Your task to perform on an android device: turn off notifications settings in the gmail app Image 0: 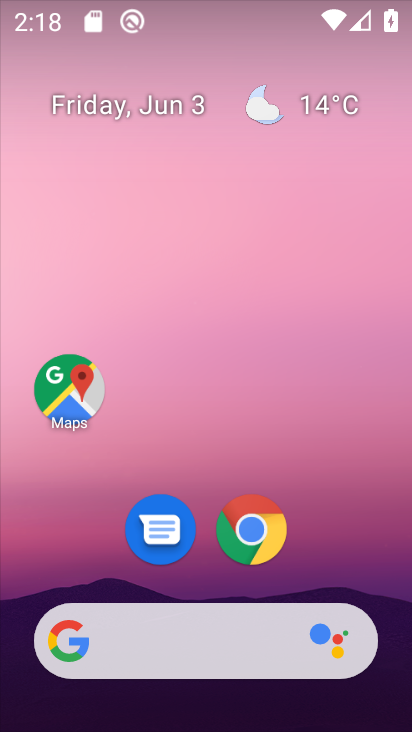
Step 0: click (193, 319)
Your task to perform on an android device: turn off notifications settings in the gmail app Image 1: 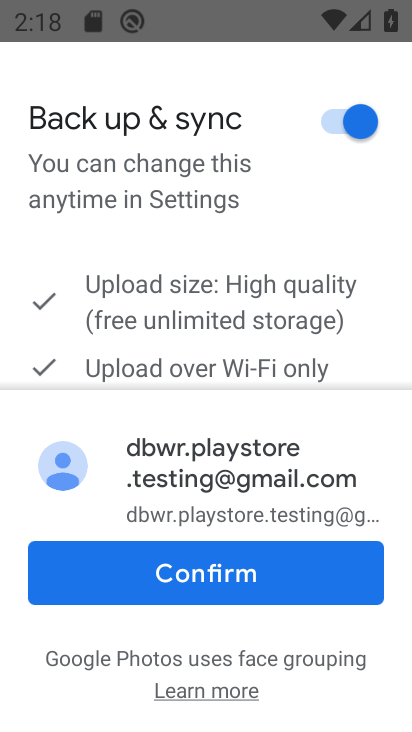
Step 1: click (258, 574)
Your task to perform on an android device: turn off notifications settings in the gmail app Image 2: 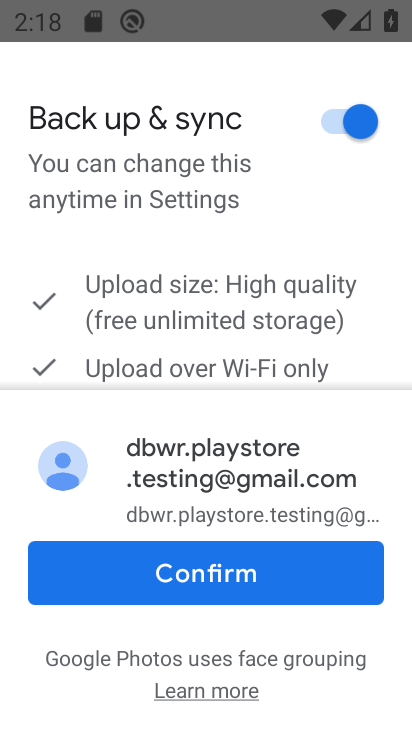
Step 2: click (258, 574)
Your task to perform on an android device: turn off notifications settings in the gmail app Image 3: 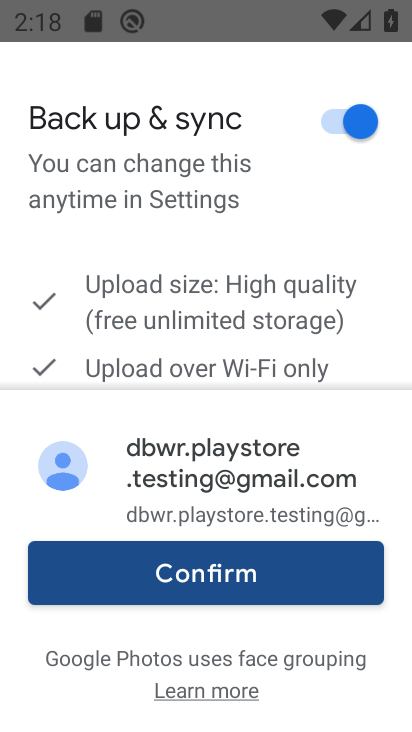
Step 3: click (258, 574)
Your task to perform on an android device: turn off notifications settings in the gmail app Image 4: 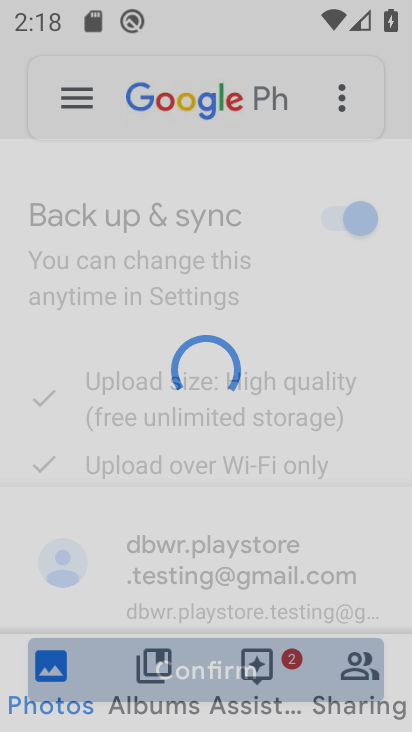
Step 4: click (258, 574)
Your task to perform on an android device: turn off notifications settings in the gmail app Image 5: 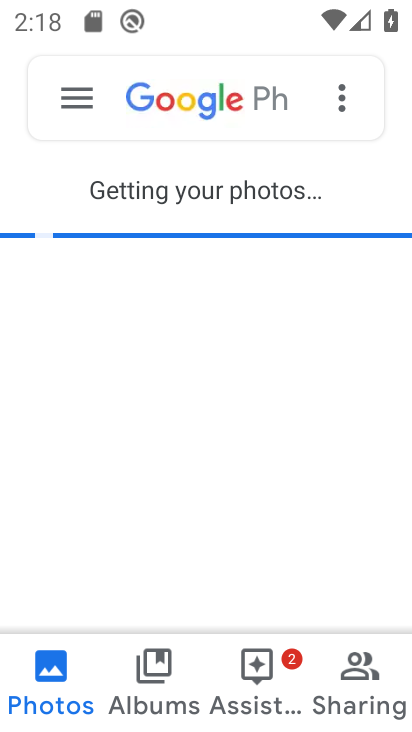
Step 5: click (258, 574)
Your task to perform on an android device: turn off notifications settings in the gmail app Image 6: 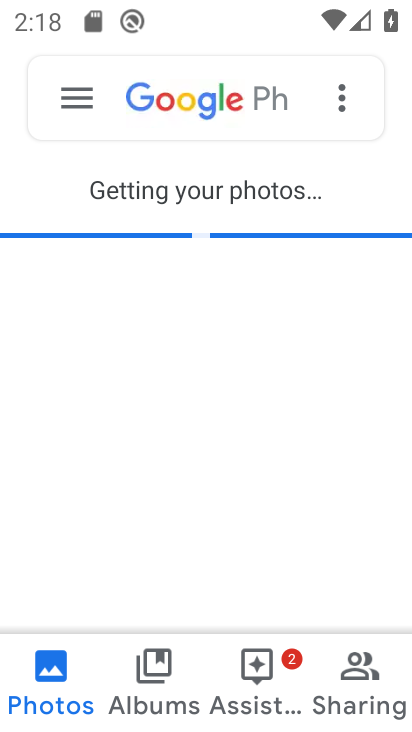
Step 6: click (258, 574)
Your task to perform on an android device: turn off notifications settings in the gmail app Image 7: 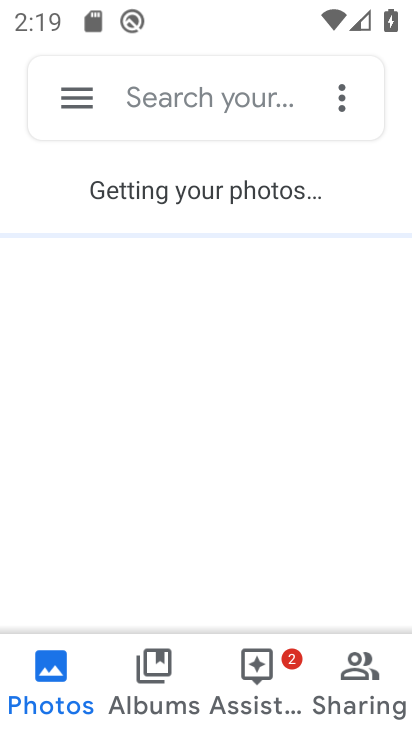
Step 7: click (86, 85)
Your task to perform on an android device: turn off notifications settings in the gmail app Image 8: 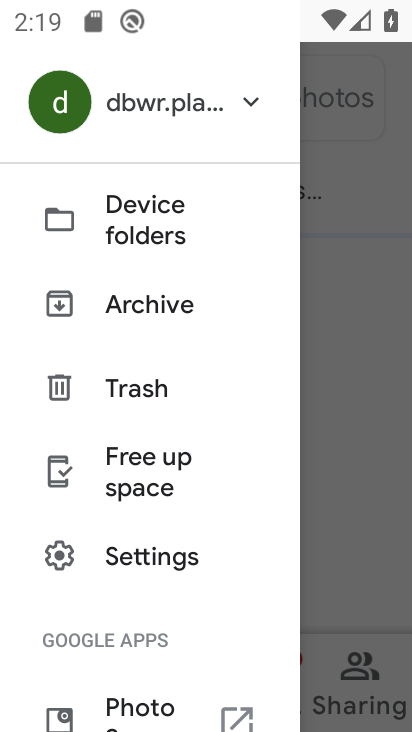
Step 8: click (148, 555)
Your task to perform on an android device: turn off notifications settings in the gmail app Image 9: 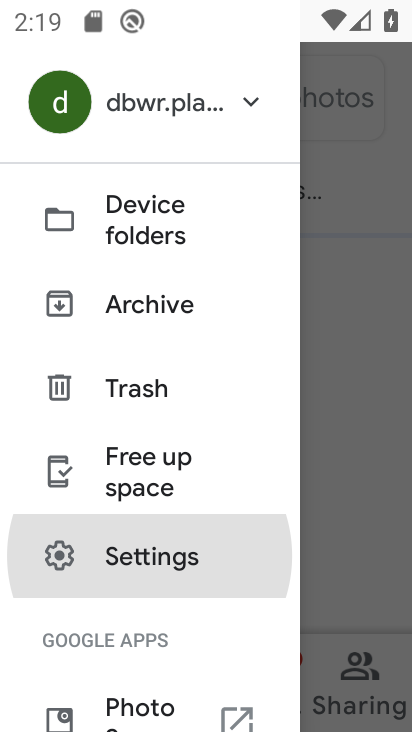
Step 9: click (148, 555)
Your task to perform on an android device: turn off notifications settings in the gmail app Image 10: 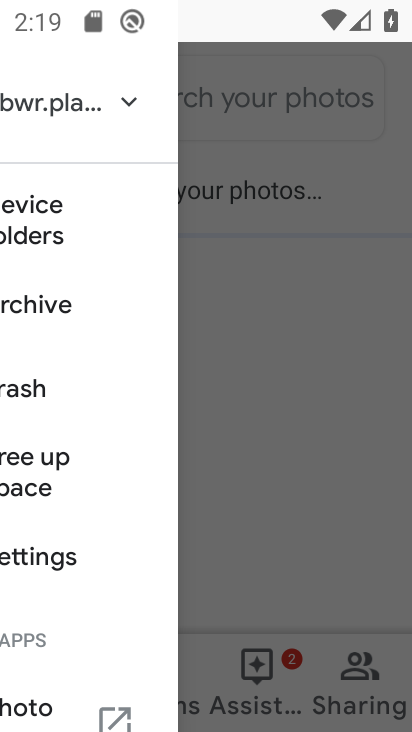
Step 10: click (148, 555)
Your task to perform on an android device: turn off notifications settings in the gmail app Image 11: 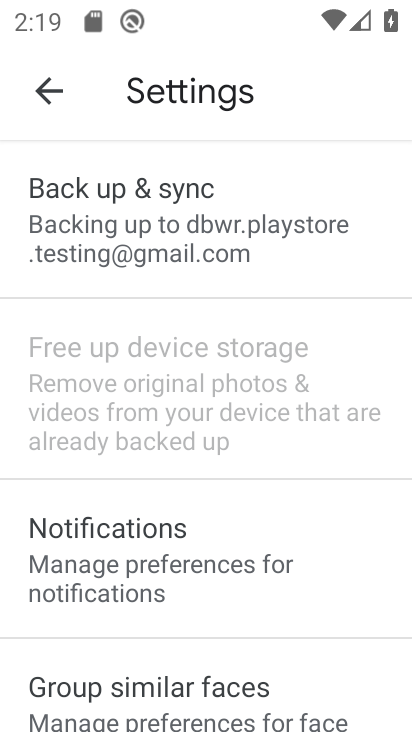
Step 11: drag from (132, 446) to (136, 272)
Your task to perform on an android device: turn off notifications settings in the gmail app Image 12: 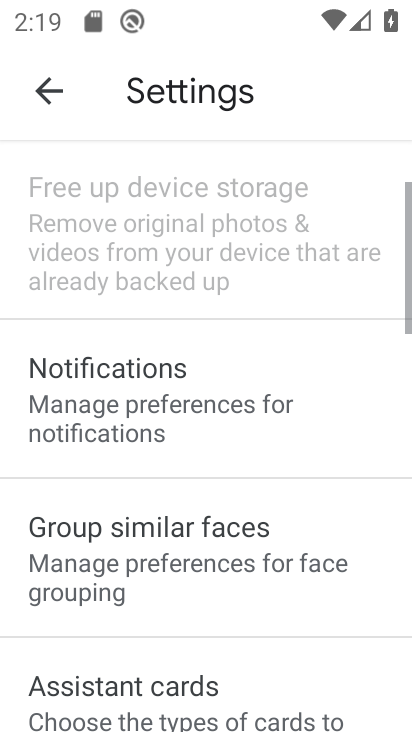
Step 12: drag from (174, 441) to (168, 239)
Your task to perform on an android device: turn off notifications settings in the gmail app Image 13: 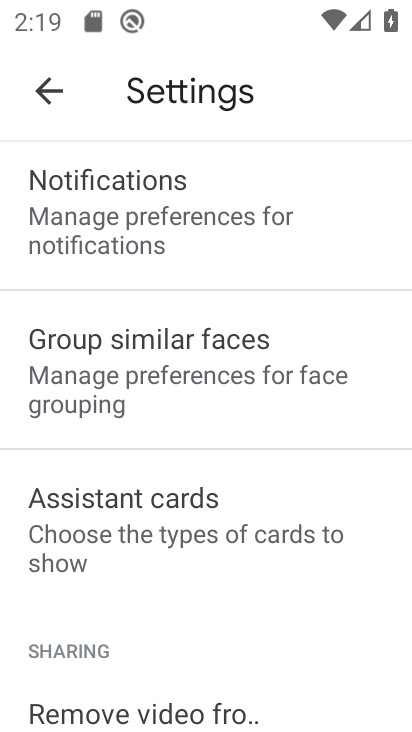
Step 13: drag from (138, 471) to (142, 243)
Your task to perform on an android device: turn off notifications settings in the gmail app Image 14: 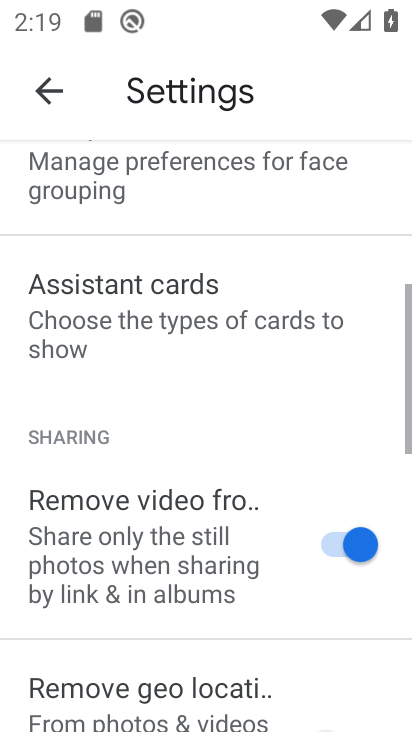
Step 14: drag from (142, 442) to (136, 238)
Your task to perform on an android device: turn off notifications settings in the gmail app Image 15: 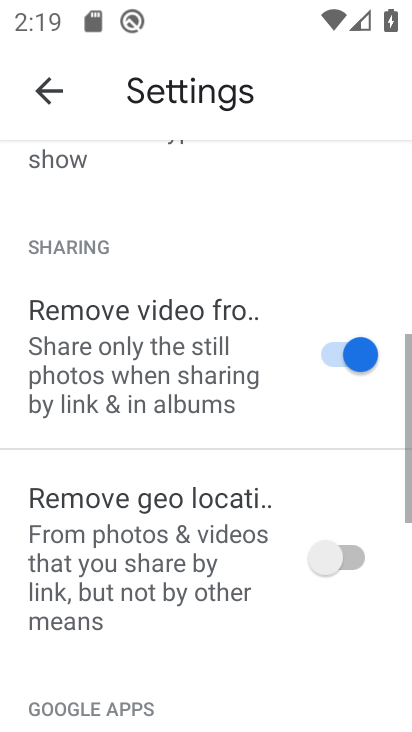
Step 15: drag from (155, 426) to (151, 254)
Your task to perform on an android device: turn off notifications settings in the gmail app Image 16: 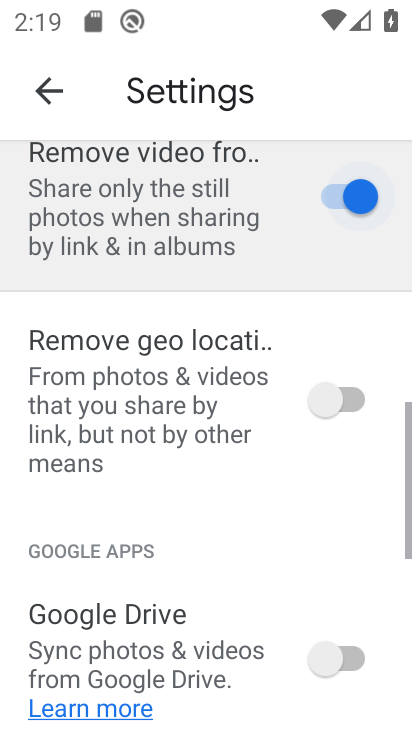
Step 16: drag from (146, 406) to (147, 192)
Your task to perform on an android device: turn off notifications settings in the gmail app Image 17: 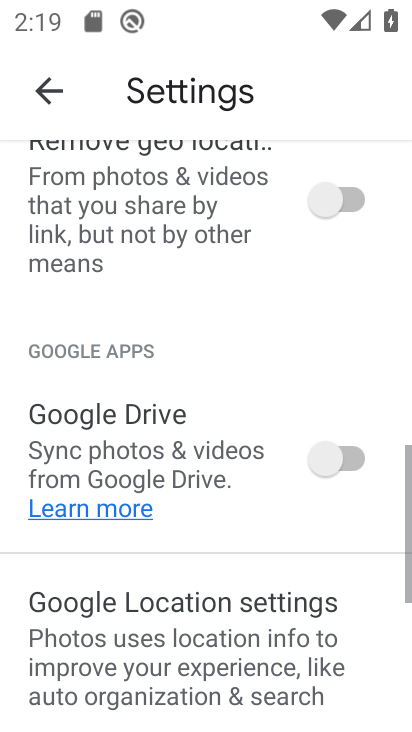
Step 17: drag from (156, 397) to (159, 161)
Your task to perform on an android device: turn off notifications settings in the gmail app Image 18: 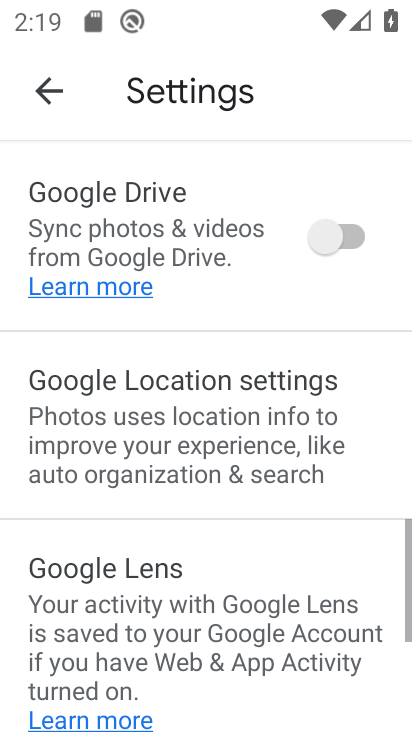
Step 18: drag from (164, 409) to (185, 155)
Your task to perform on an android device: turn off notifications settings in the gmail app Image 19: 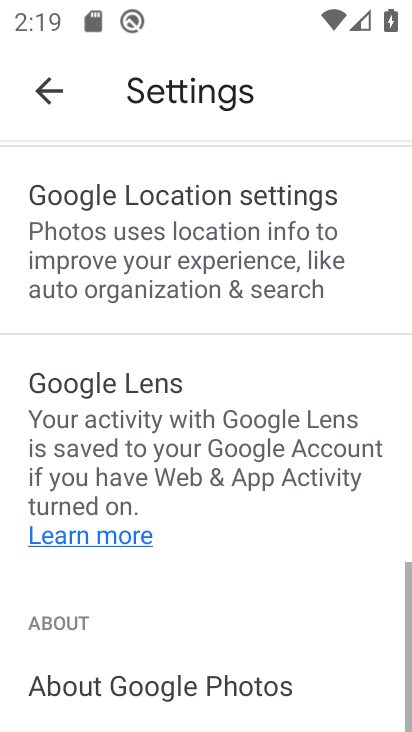
Step 19: drag from (178, 404) to (200, 134)
Your task to perform on an android device: turn off notifications settings in the gmail app Image 20: 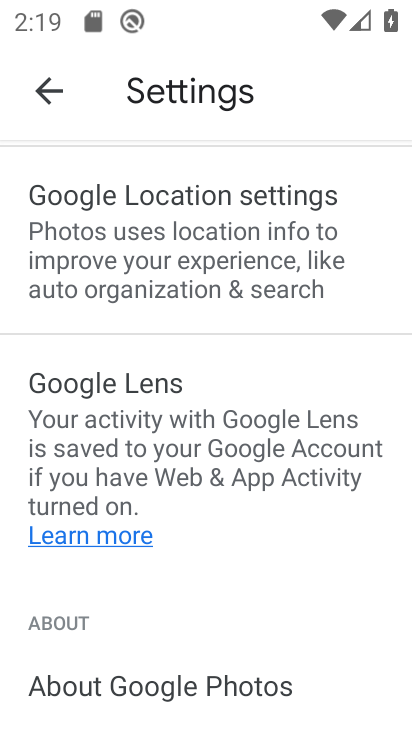
Step 20: drag from (101, 614) to (120, 356)
Your task to perform on an android device: turn off notifications settings in the gmail app Image 21: 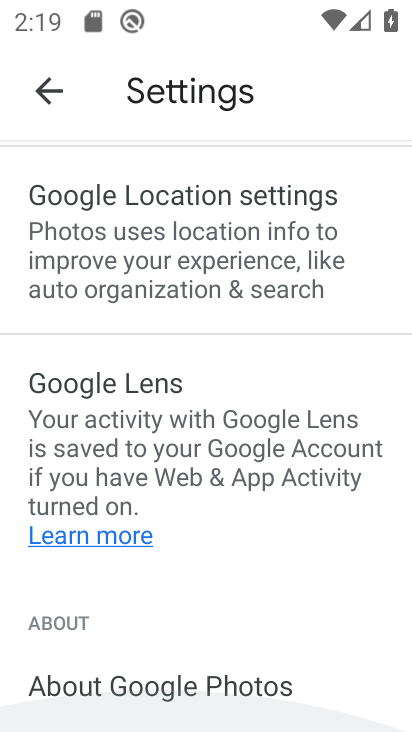
Step 21: drag from (120, 535) to (165, 250)
Your task to perform on an android device: turn off notifications settings in the gmail app Image 22: 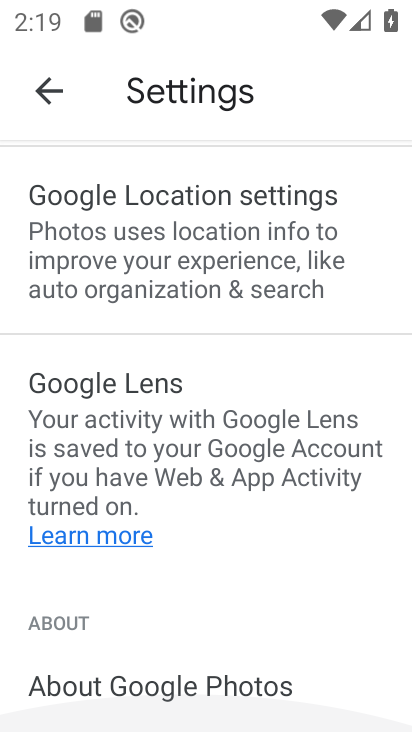
Step 22: drag from (167, 523) to (171, 316)
Your task to perform on an android device: turn off notifications settings in the gmail app Image 23: 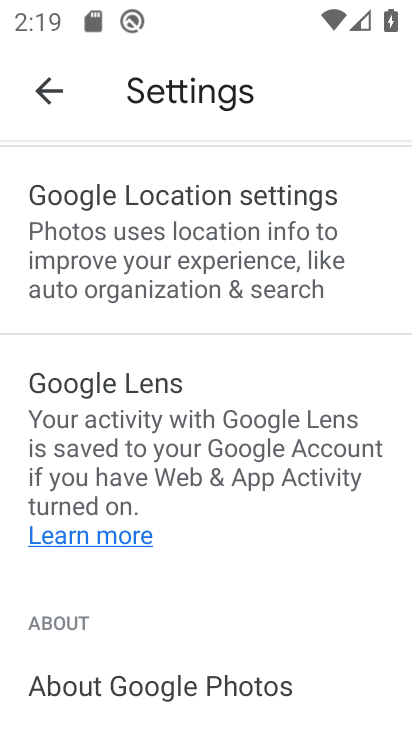
Step 23: drag from (197, 428) to (197, 261)
Your task to perform on an android device: turn off notifications settings in the gmail app Image 24: 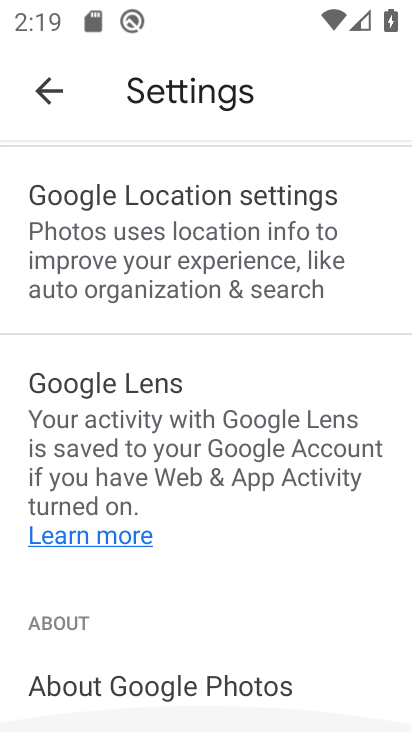
Step 24: click (166, 588)
Your task to perform on an android device: turn off notifications settings in the gmail app Image 25: 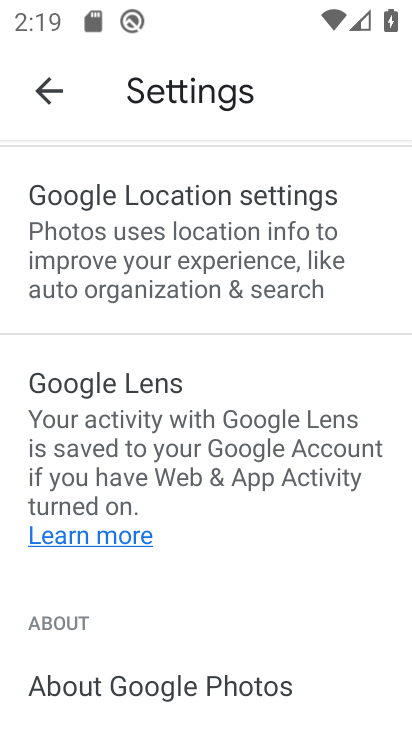
Step 25: click (155, 624)
Your task to perform on an android device: turn off notifications settings in the gmail app Image 26: 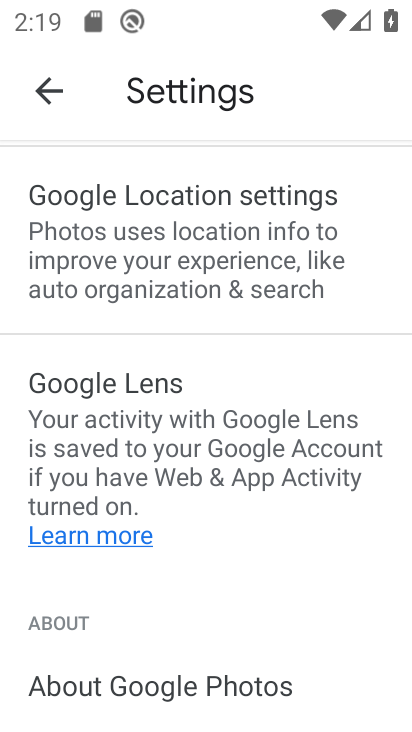
Step 26: drag from (123, 375) to (205, 709)
Your task to perform on an android device: turn off notifications settings in the gmail app Image 27: 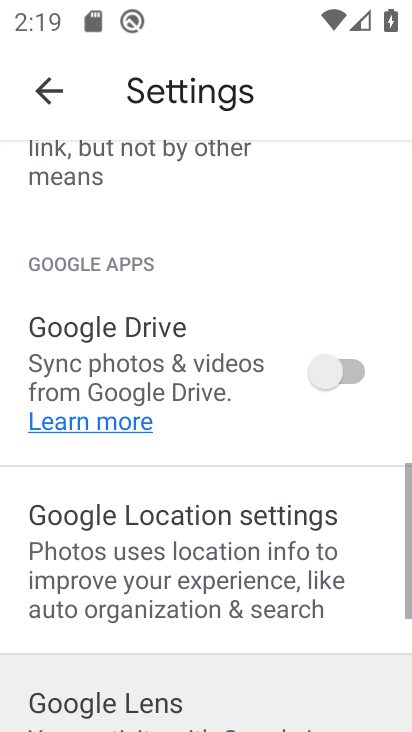
Step 27: drag from (142, 363) to (275, 615)
Your task to perform on an android device: turn off notifications settings in the gmail app Image 28: 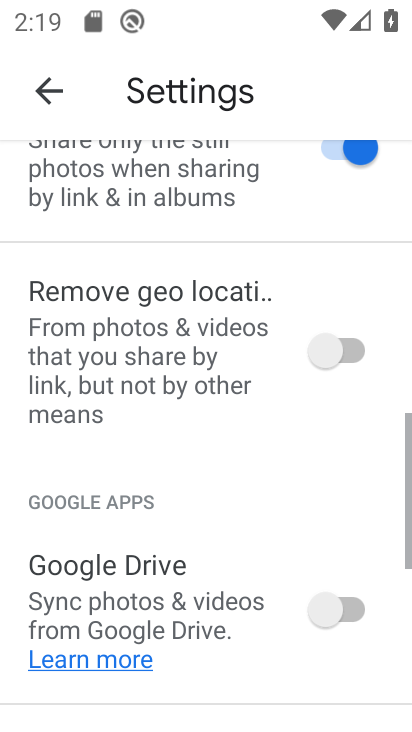
Step 28: drag from (164, 276) to (229, 538)
Your task to perform on an android device: turn off notifications settings in the gmail app Image 29: 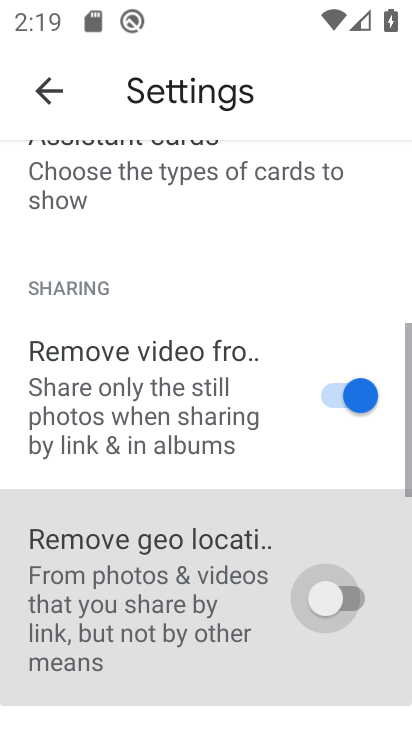
Step 29: drag from (178, 372) to (210, 552)
Your task to perform on an android device: turn off notifications settings in the gmail app Image 30: 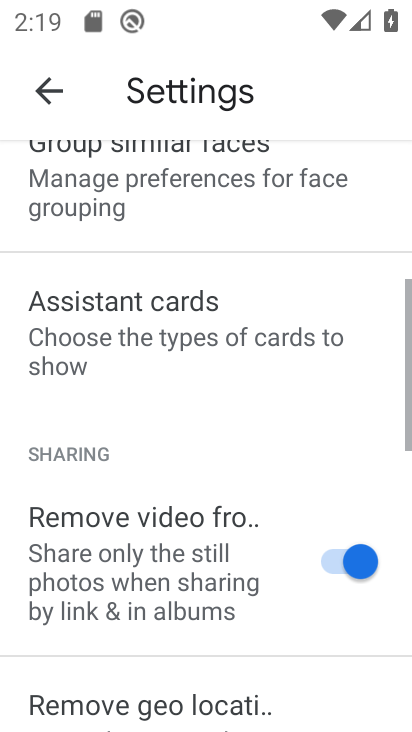
Step 30: drag from (122, 356) to (164, 438)
Your task to perform on an android device: turn off notifications settings in the gmail app Image 31: 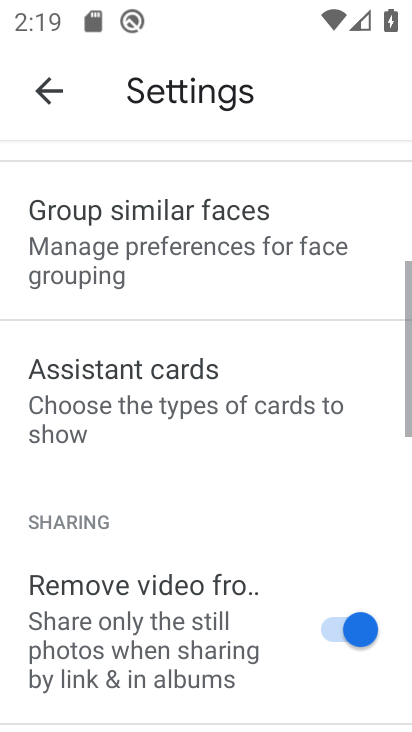
Step 31: drag from (144, 339) to (169, 581)
Your task to perform on an android device: turn off notifications settings in the gmail app Image 32: 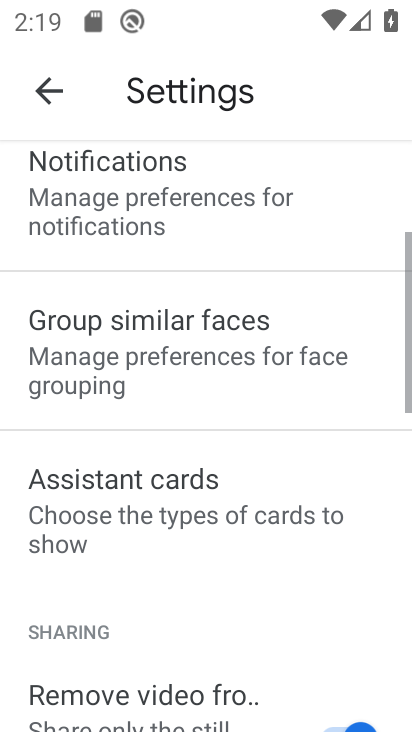
Step 32: click (150, 618)
Your task to perform on an android device: turn off notifications settings in the gmail app Image 33: 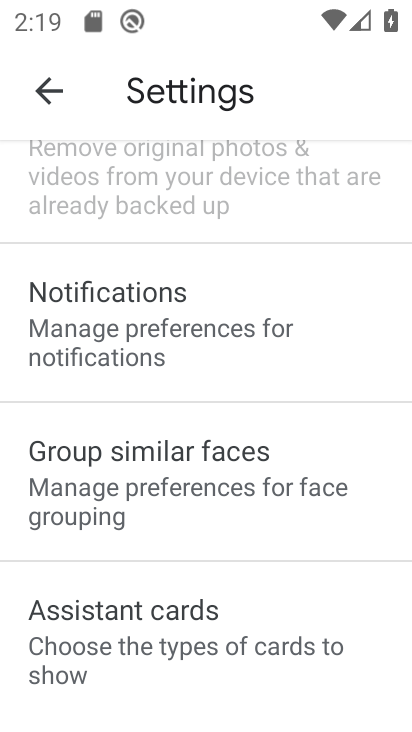
Step 33: drag from (165, 476) to (166, 719)
Your task to perform on an android device: turn off notifications settings in the gmail app Image 34: 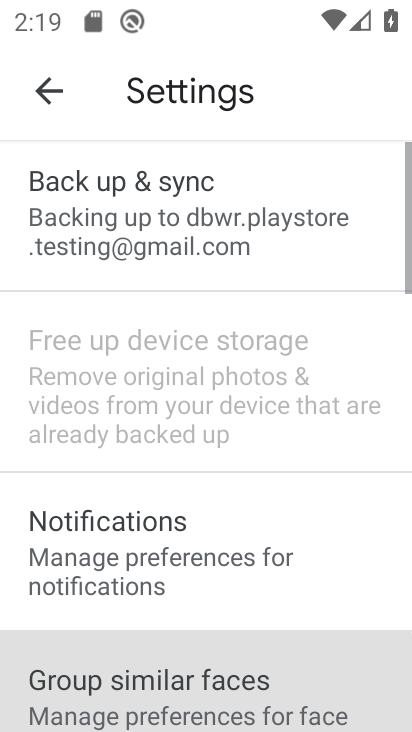
Step 34: drag from (191, 572) to (185, 651)
Your task to perform on an android device: turn off notifications settings in the gmail app Image 35: 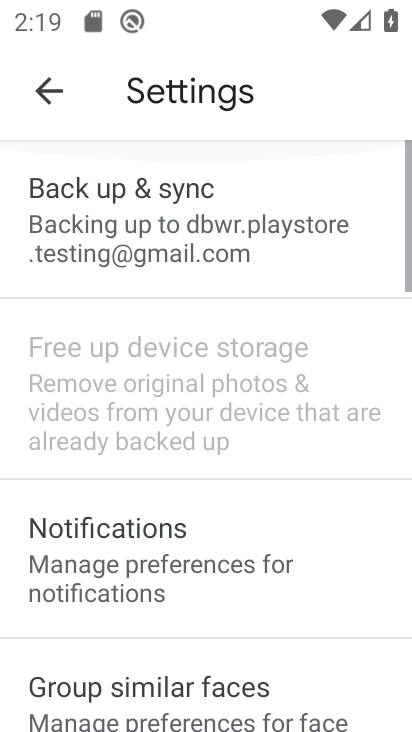
Step 35: drag from (176, 499) to (193, 626)
Your task to perform on an android device: turn off notifications settings in the gmail app Image 36: 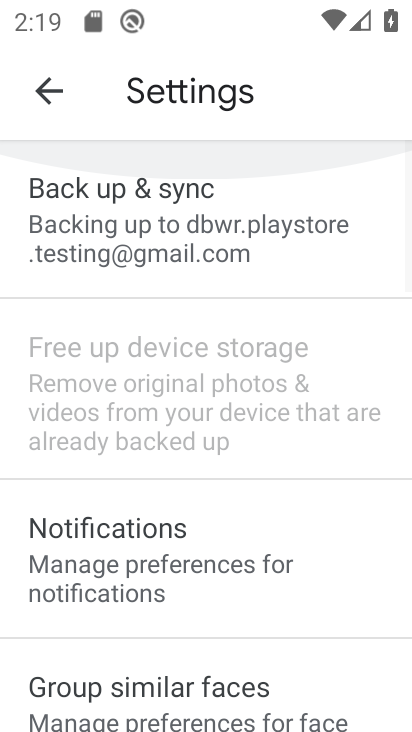
Step 36: drag from (106, 256) to (208, 632)
Your task to perform on an android device: turn off notifications settings in the gmail app Image 37: 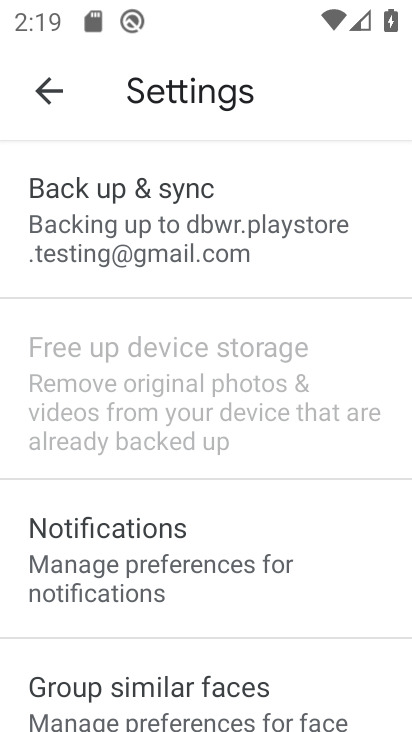
Step 37: click (49, 91)
Your task to perform on an android device: turn off notifications settings in the gmail app Image 38: 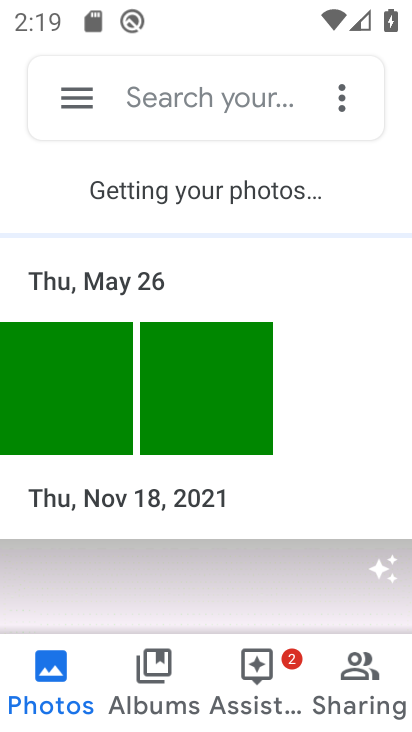
Step 38: click (73, 110)
Your task to perform on an android device: turn off notifications settings in the gmail app Image 39: 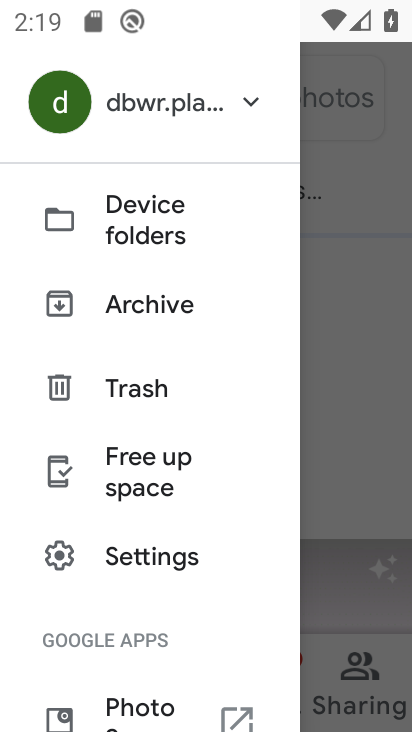
Step 39: drag from (162, 602) to (162, 303)
Your task to perform on an android device: turn off notifications settings in the gmail app Image 40: 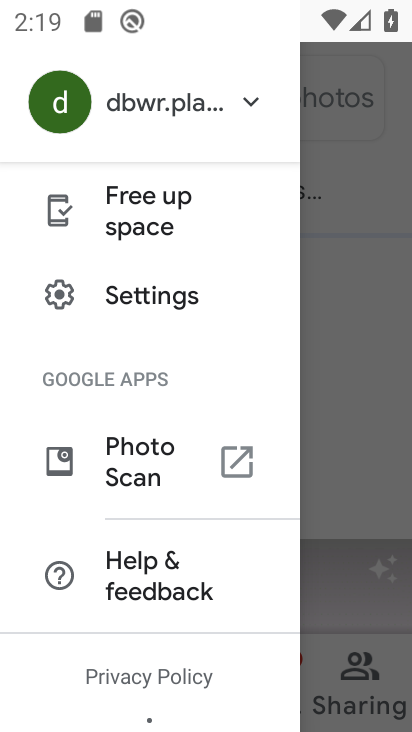
Step 40: drag from (176, 435) to (177, 95)
Your task to perform on an android device: turn off notifications settings in the gmail app Image 41: 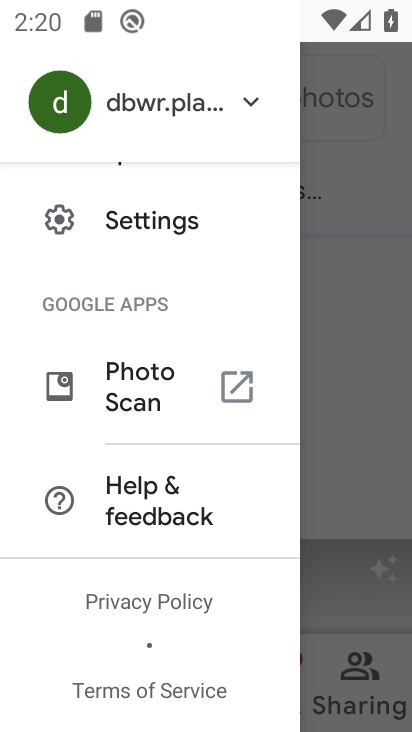
Step 41: click (149, 207)
Your task to perform on an android device: turn off notifications settings in the gmail app Image 42: 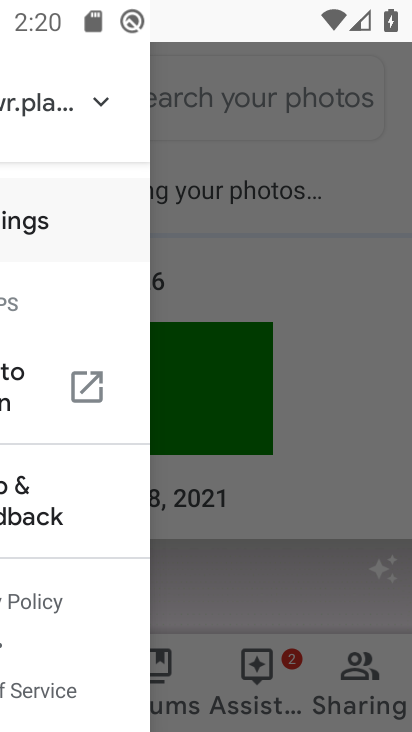
Step 42: click (146, 211)
Your task to perform on an android device: turn off notifications settings in the gmail app Image 43: 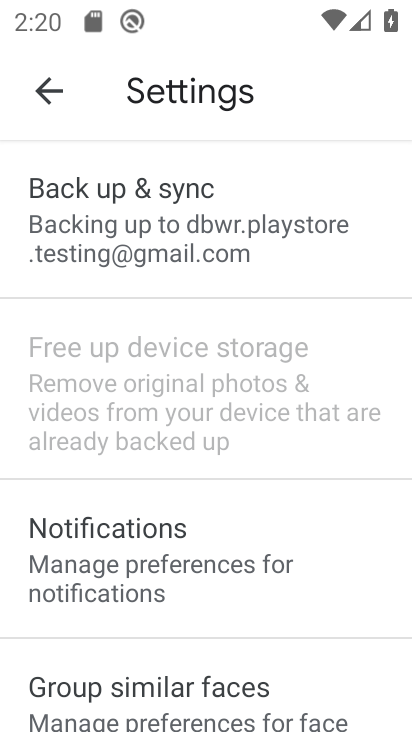
Step 43: drag from (125, 293) to (114, 212)
Your task to perform on an android device: turn off notifications settings in the gmail app Image 44: 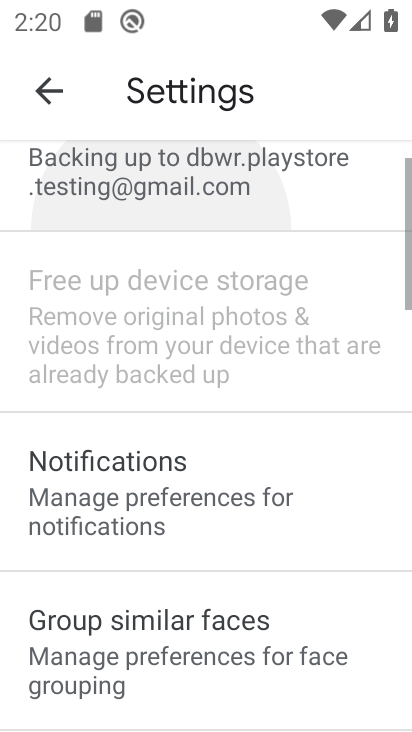
Step 44: drag from (141, 580) to (152, 135)
Your task to perform on an android device: turn off notifications settings in the gmail app Image 45: 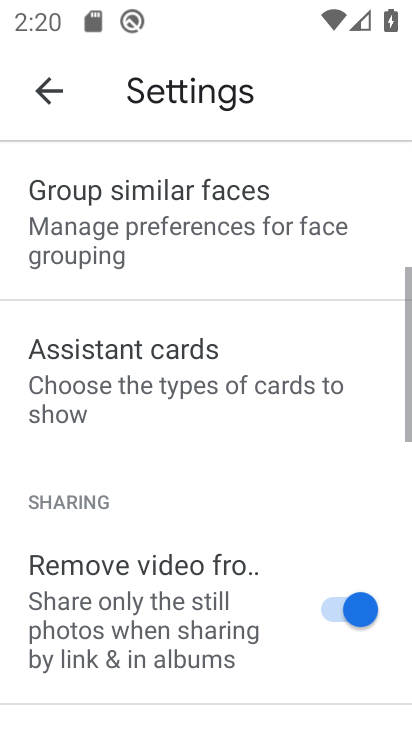
Step 45: drag from (215, 484) to (212, 161)
Your task to perform on an android device: turn off notifications settings in the gmail app Image 46: 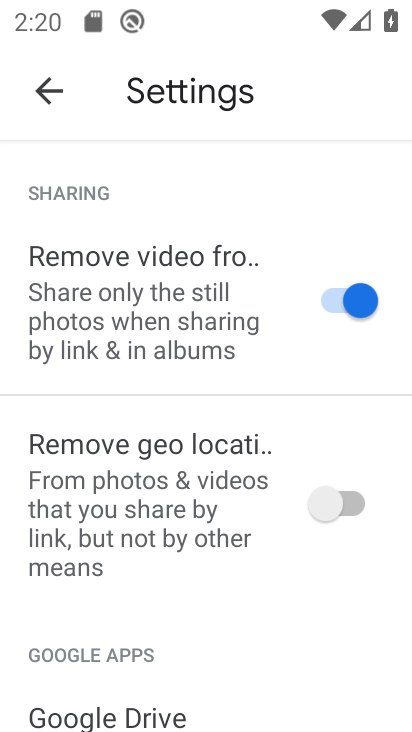
Step 46: drag from (151, 249) to (236, 605)
Your task to perform on an android device: turn off notifications settings in the gmail app Image 47: 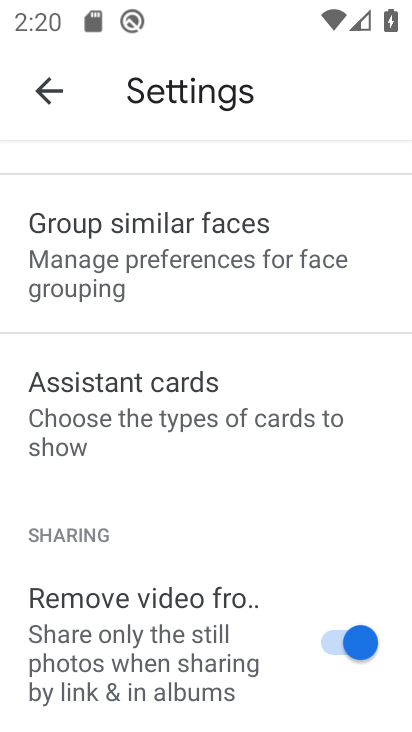
Step 47: drag from (128, 310) to (168, 651)
Your task to perform on an android device: turn off notifications settings in the gmail app Image 48: 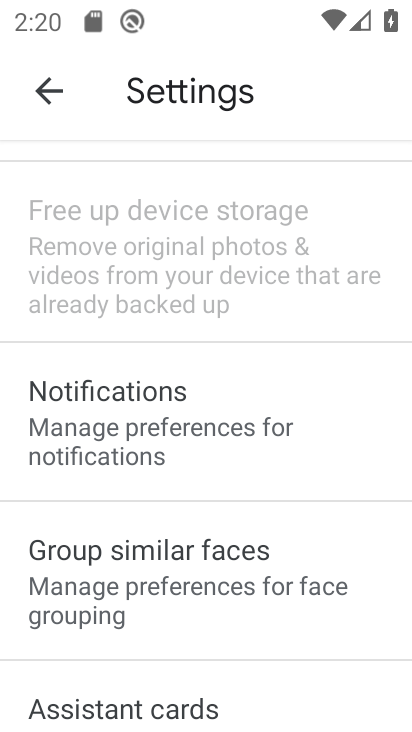
Step 48: click (87, 434)
Your task to perform on an android device: turn off notifications settings in the gmail app Image 49: 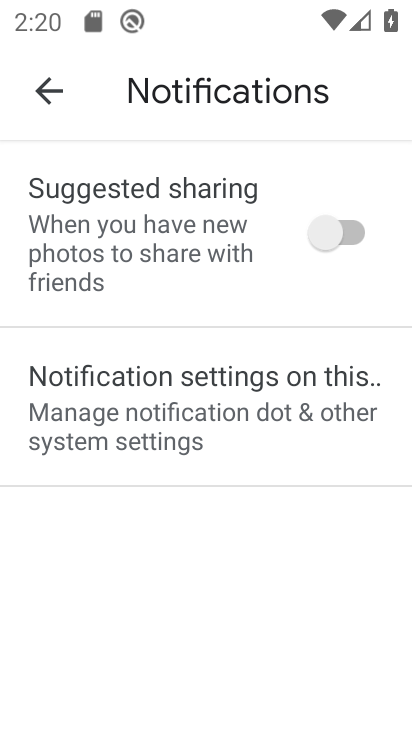
Step 49: click (195, 420)
Your task to perform on an android device: turn off notifications settings in the gmail app Image 50: 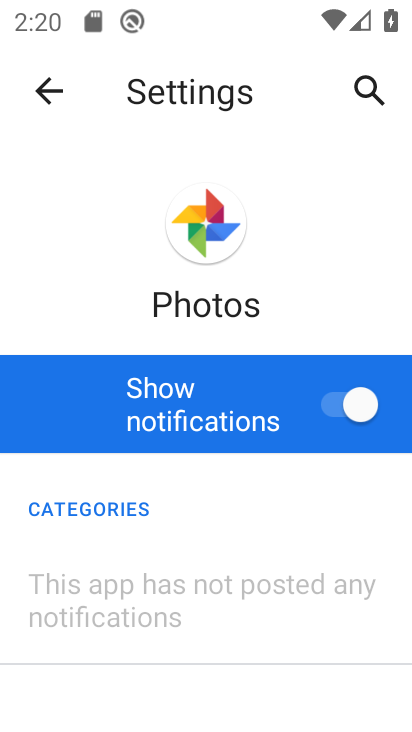
Step 50: click (35, 79)
Your task to perform on an android device: turn off notifications settings in the gmail app Image 51: 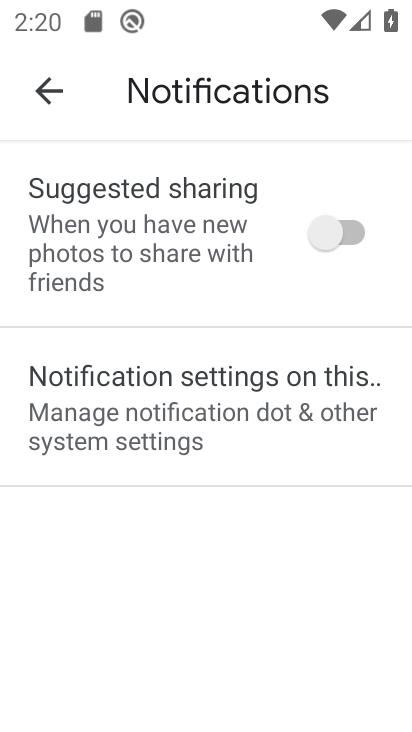
Step 51: press back button
Your task to perform on an android device: turn off notifications settings in the gmail app Image 52: 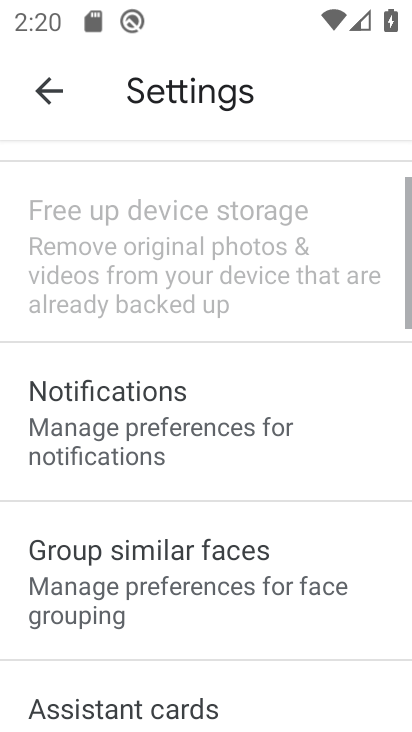
Step 52: press back button
Your task to perform on an android device: turn off notifications settings in the gmail app Image 53: 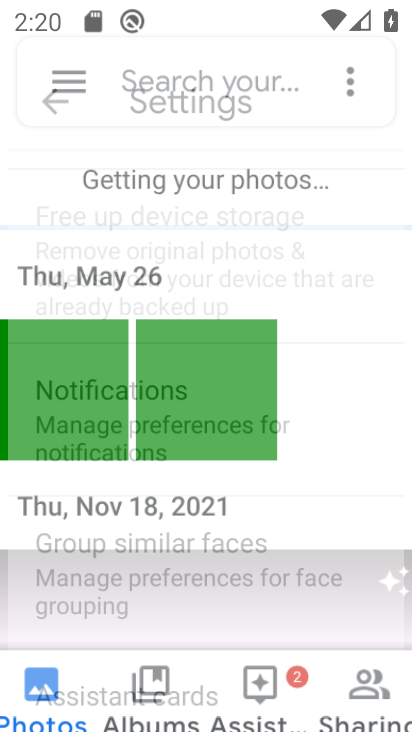
Step 53: press back button
Your task to perform on an android device: turn off notifications settings in the gmail app Image 54: 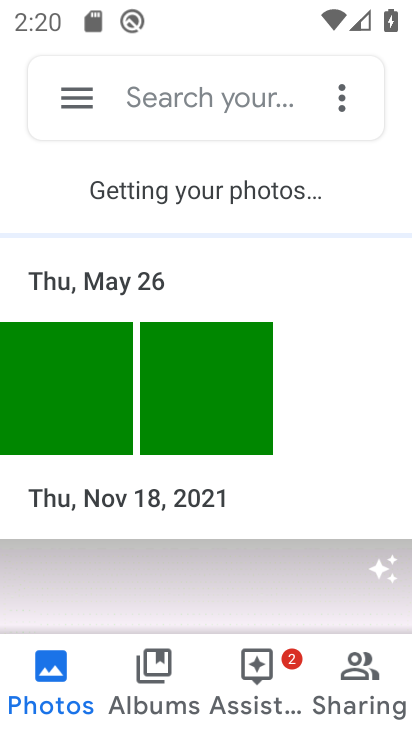
Step 54: press back button
Your task to perform on an android device: turn off notifications settings in the gmail app Image 55: 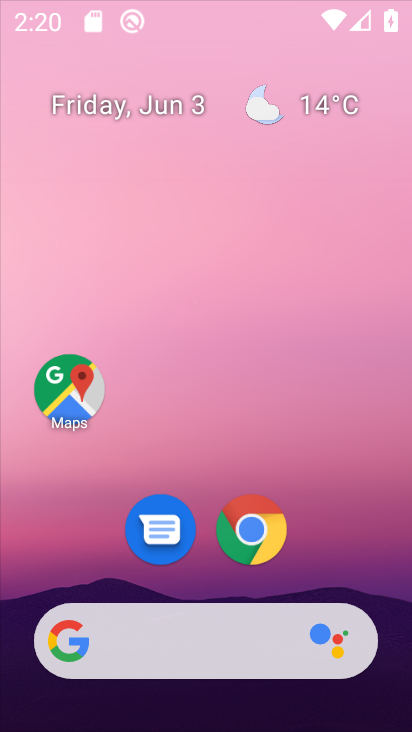
Step 55: press back button
Your task to perform on an android device: turn off notifications settings in the gmail app Image 56: 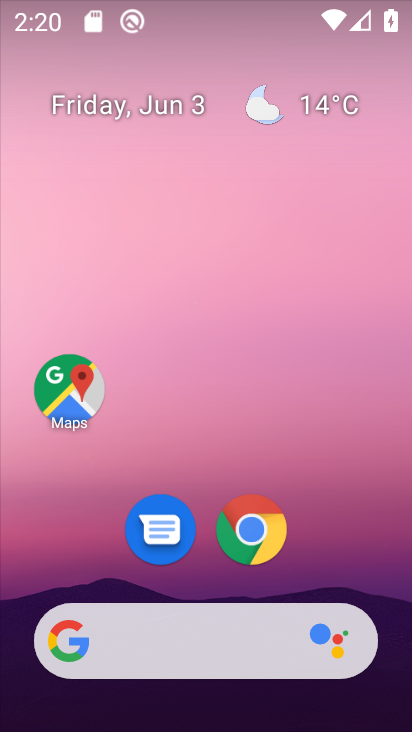
Step 56: press home button
Your task to perform on an android device: turn off notifications settings in the gmail app Image 57: 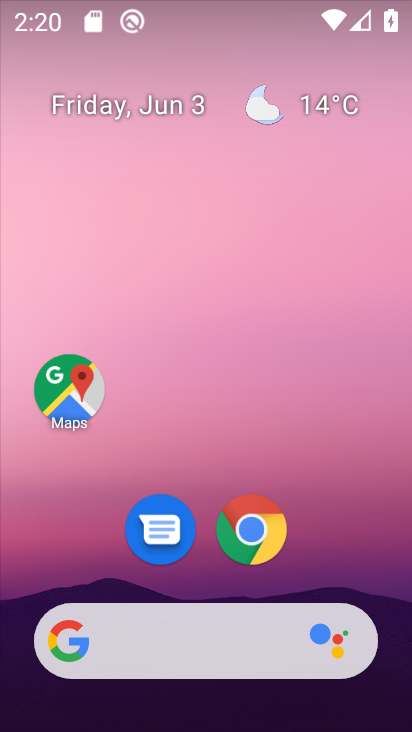
Step 57: press home button
Your task to perform on an android device: turn off notifications settings in the gmail app Image 58: 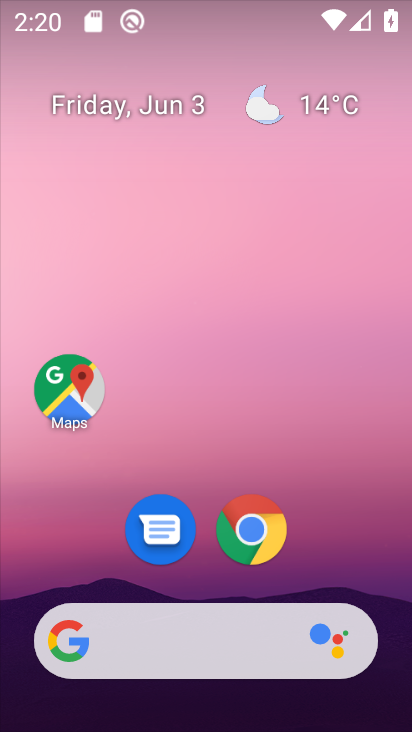
Step 58: drag from (303, 691) to (204, 64)
Your task to perform on an android device: turn off notifications settings in the gmail app Image 59: 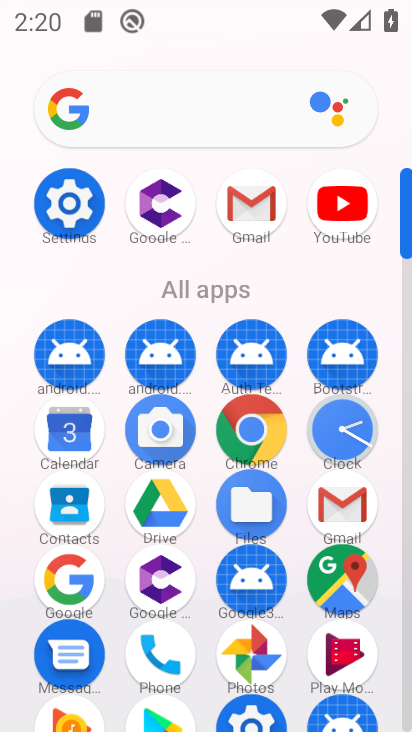
Step 59: click (331, 495)
Your task to perform on an android device: turn off notifications settings in the gmail app Image 60: 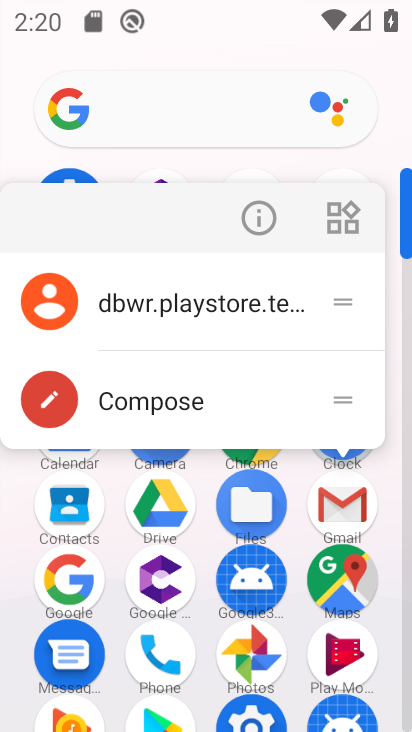
Step 60: click (181, 292)
Your task to perform on an android device: turn off notifications settings in the gmail app Image 61: 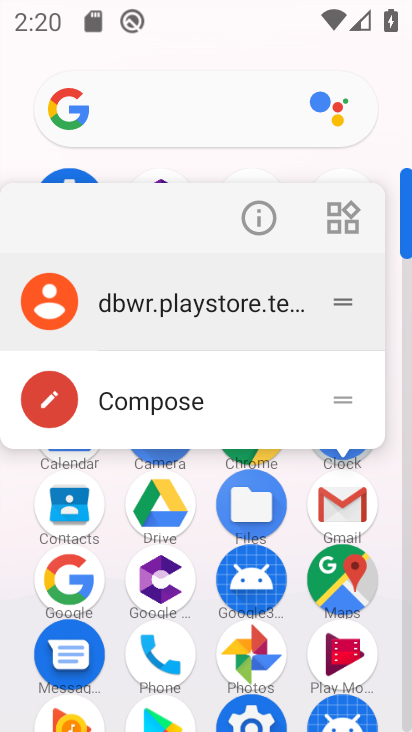
Step 61: click (179, 295)
Your task to perform on an android device: turn off notifications settings in the gmail app Image 62: 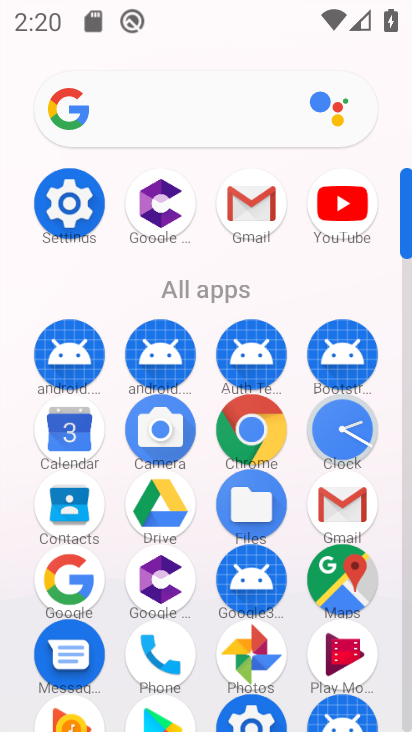
Step 62: click (179, 295)
Your task to perform on an android device: turn off notifications settings in the gmail app Image 63: 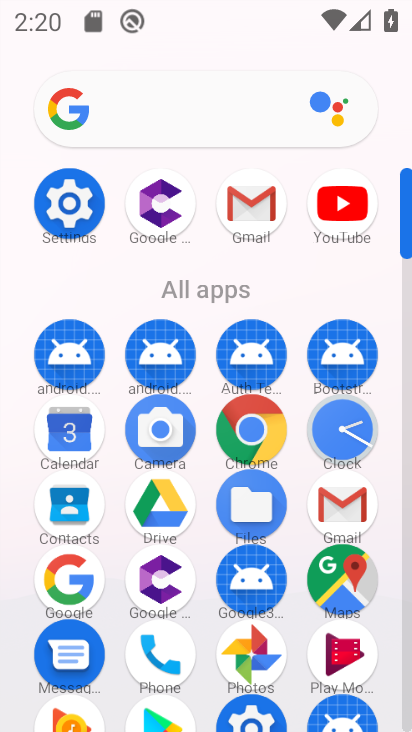
Step 63: click (179, 296)
Your task to perform on an android device: turn off notifications settings in the gmail app Image 64: 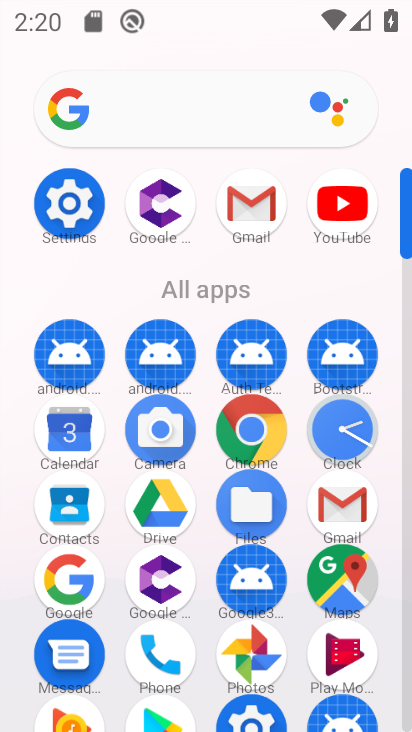
Step 64: click (179, 296)
Your task to perform on an android device: turn off notifications settings in the gmail app Image 65: 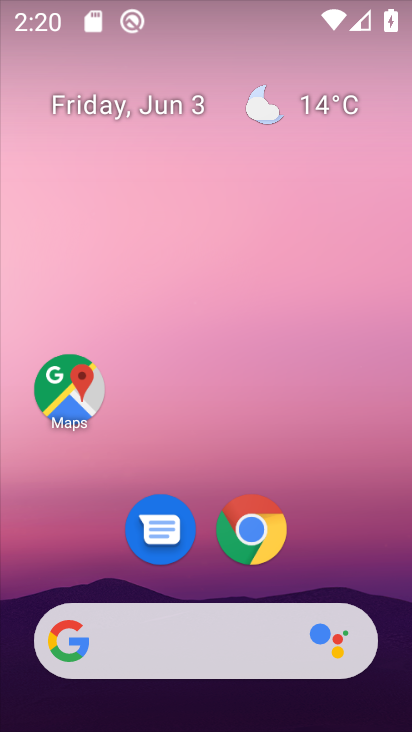
Step 65: drag from (231, 708) to (163, 4)
Your task to perform on an android device: turn off notifications settings in the gmail app Image 66: 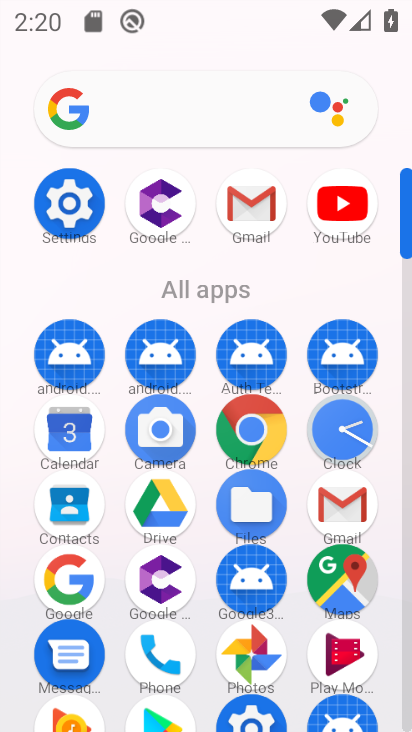
Step 66: click (341, 509)
Your task to perform on an android device: turn off notifications settings in the gmail app Image 67: 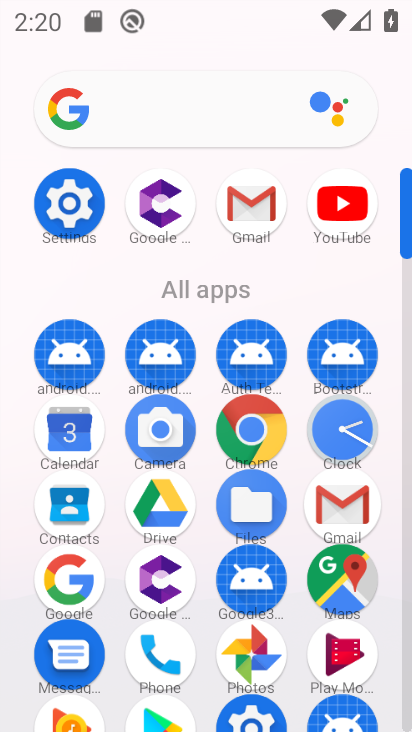
Step 67: click (340, 505)
Your task to perform on an android device: turn off notifications settings in the gmail app Image 68: 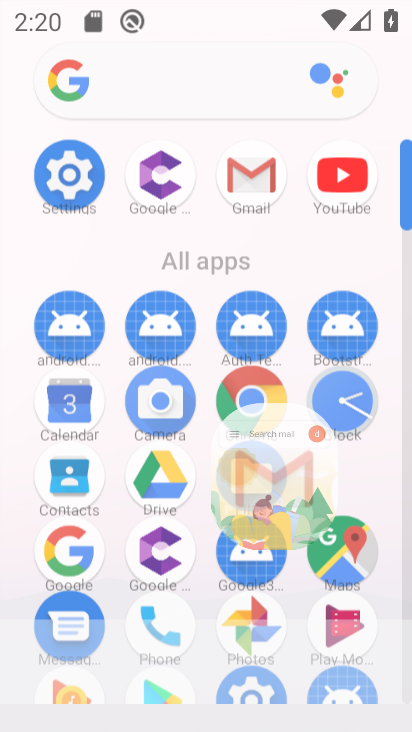
Step 68: click (339, 503)
Your task to perform on an android device: turn off notifications settings in the gmail app Image 69: 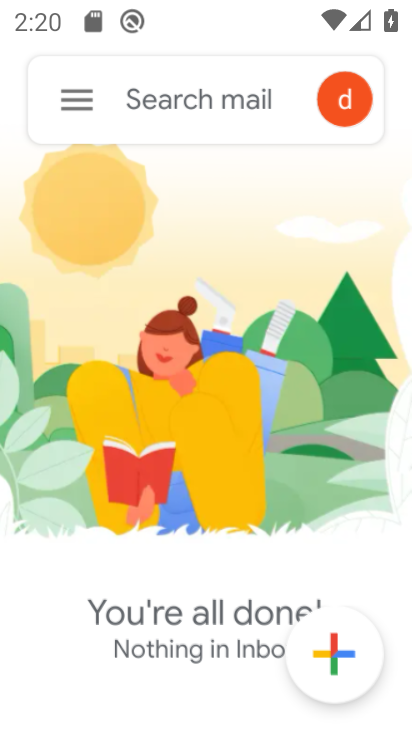
Step 69: click (338, 503)
Your task to perform on an android device: turn off notifications settings in the gmail app Image 70: 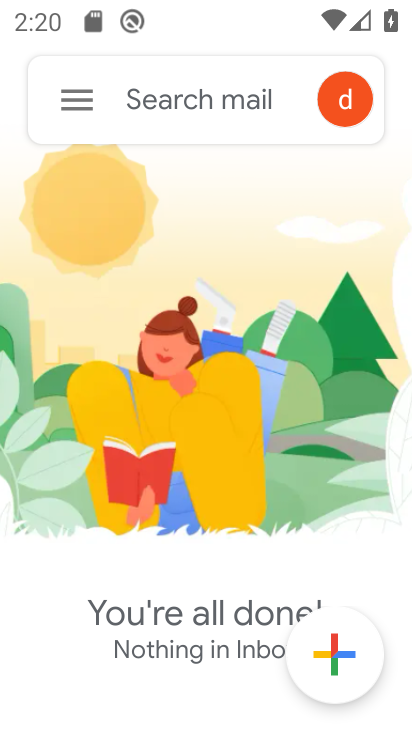
Step 70: click (75, 96)
Your task to perform on an android device: turn off notifications settings in the gmail app Image 71: 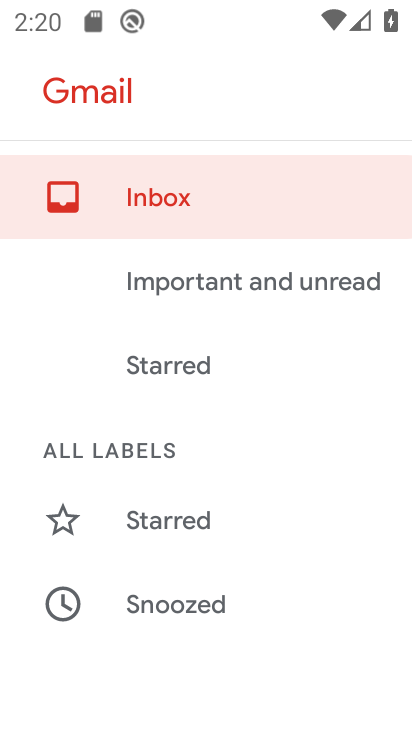
Step 71: drag from (191, 473) to (205, 10)
Your task to perform on an android device: turn off notifications settings in the gmail app Image 72: 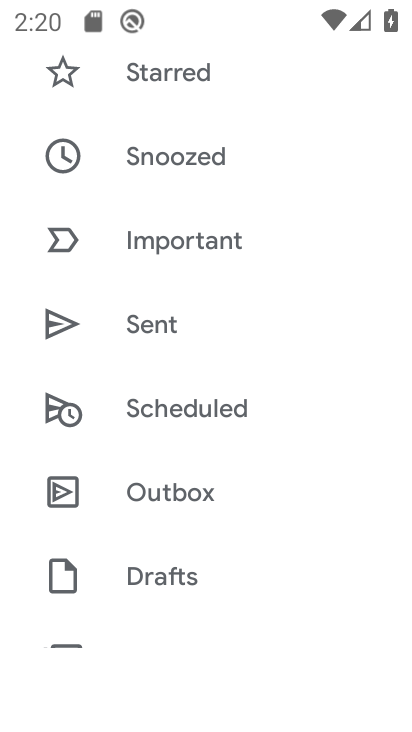
Step 72: drag from (225, 427) to (174, 80)
Your task to perform on an android device: turn off notifications settings in the gmail app Image 73: 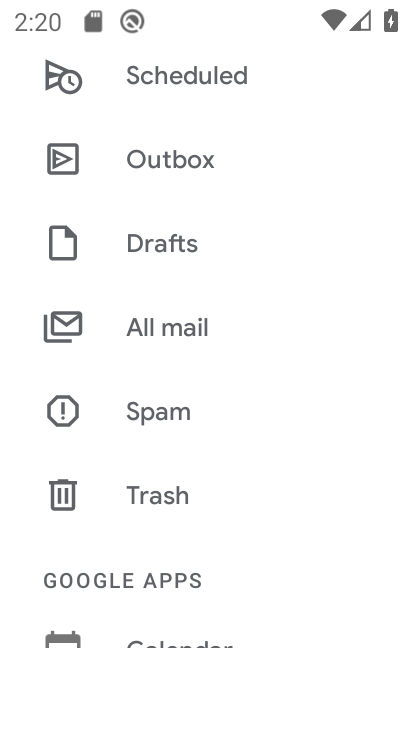
Step 73: drag from (224, 489) to (196, 70)
Your task to perform on an android device: turn off notifications settings in the gmail app Image 74: 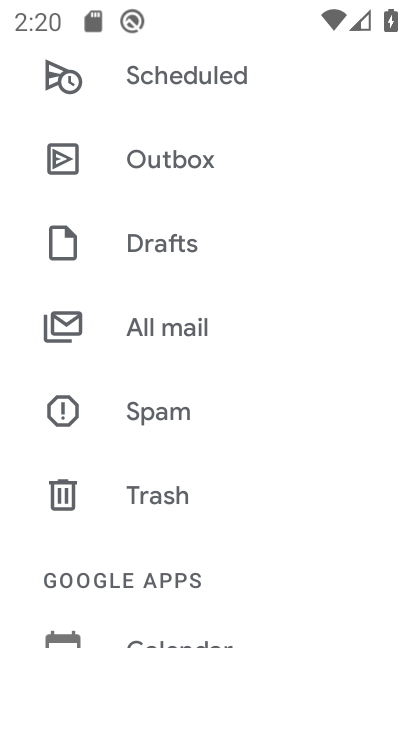
Step 74: drag from (237, 469) to (233, 110)
Your task to perform on an android device: turn off notifications settings in the gmail app Image 75: 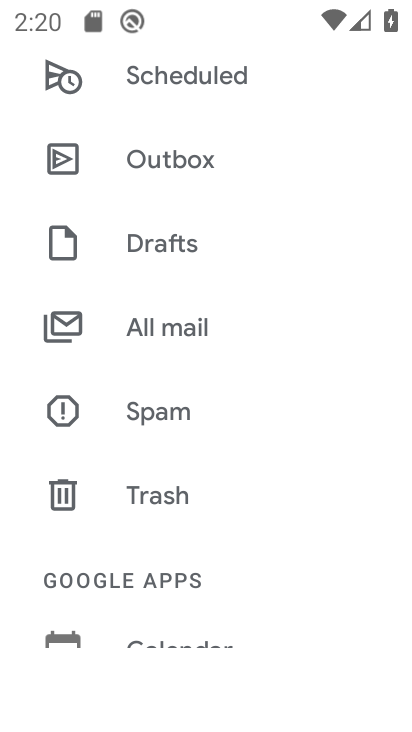
Step 75: drag from (210, 517) to (159, 141)
Your task to perform on an android device: turn off notifications settings in the gmail app Image 76: 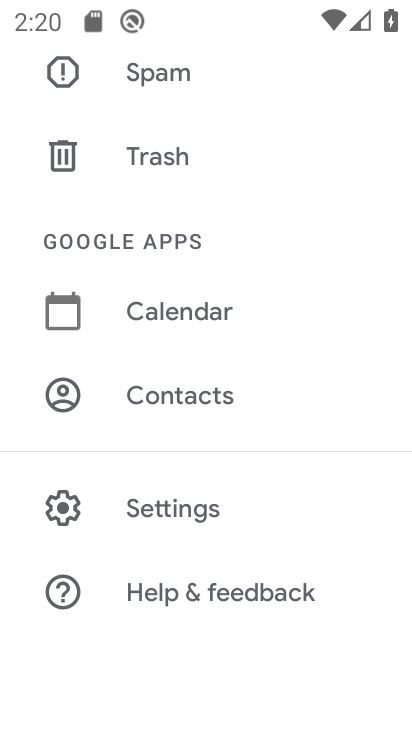
Step 76: drag from (181, 400) to (147, 158)
Your task to perform on an android device: turn off notifications settings in the gmail app Image 77: 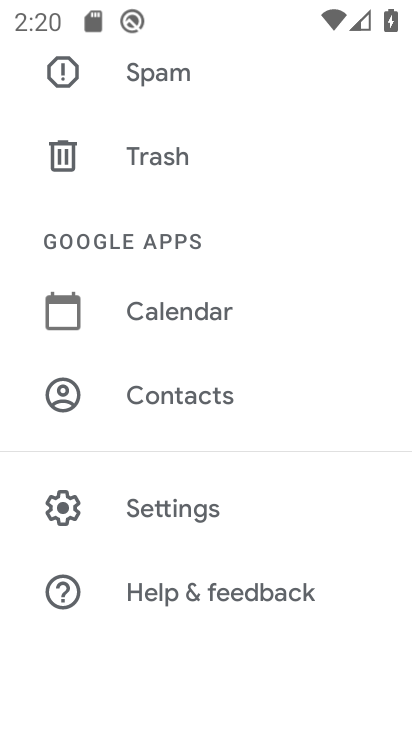
Step 77: click (167, 503)
Your task to perform on an android device: turn off notifications settings in the gmail app Image 78: 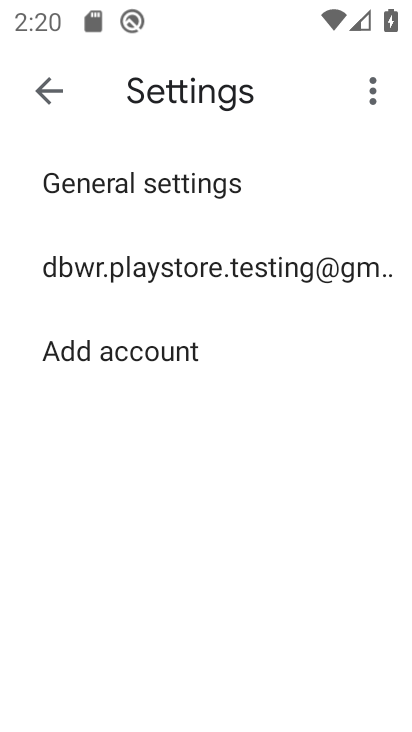
Step 78: click (142, 263)
Your task to perform on an android device: turn off notifications settings in the gmail app Image 79: 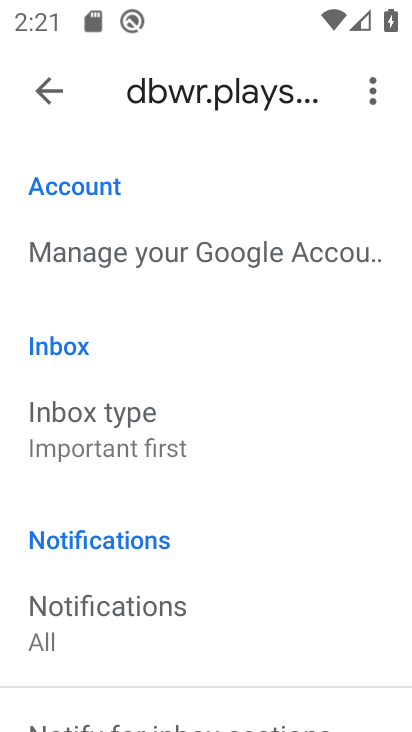
Step 79: click (102, 622)
Your task to perform on an android device: turn off notifications settings in the gmail app Image 80: 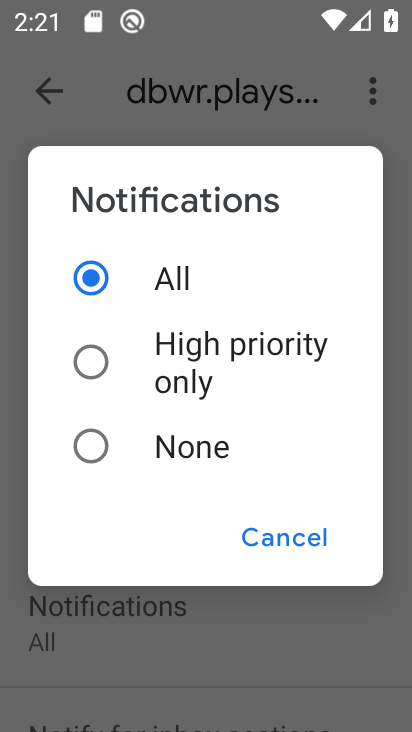
Step 80: click (79, 366)
Your task to perform on an android device: turn off notifications settings in the gmail app Image 81: 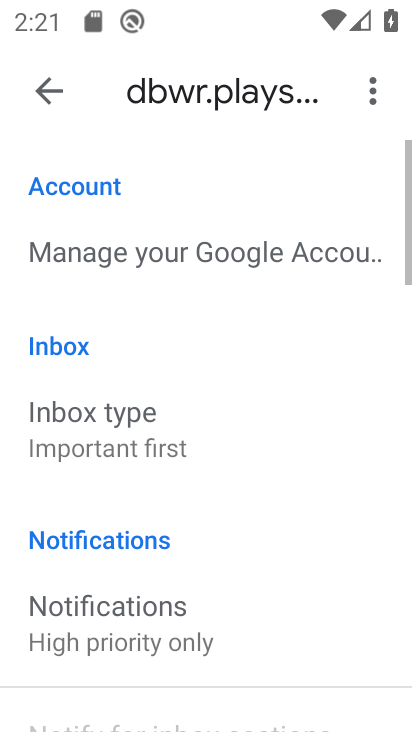
Step 81: click (94, 619)
Your task to perform on an android device: turn off notifications settings in the gmail app Image 82: 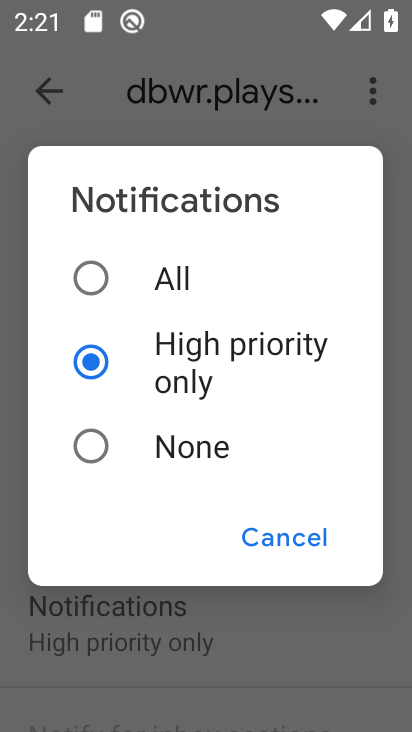
Step 82: click (83, 448)
Your task to perform on an android device: turn off notifications settings in the gmail app Image 83: 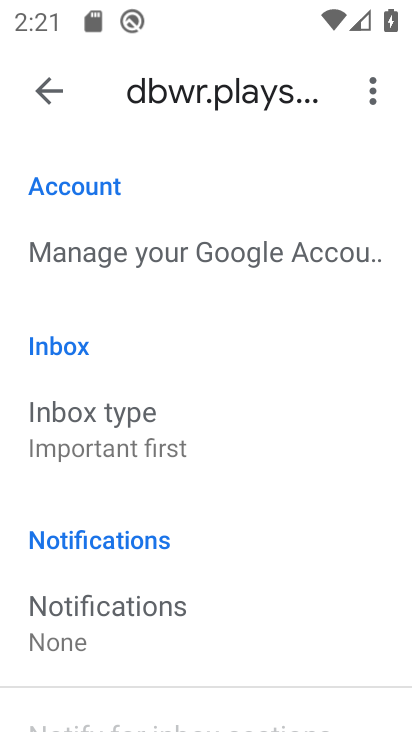
Step 83: task complete